Your task to perform on an android device: add a contact Image 0: 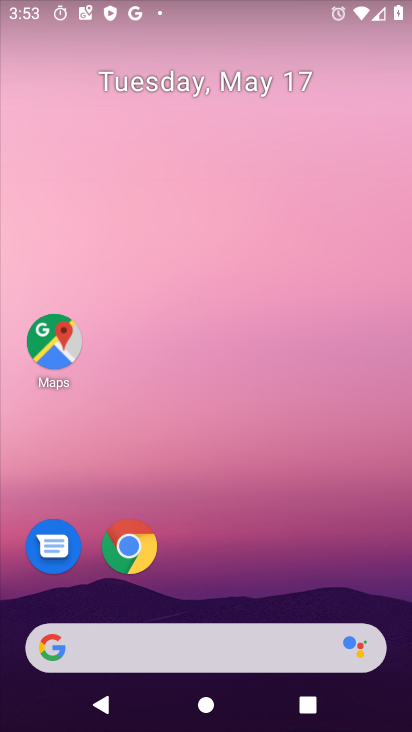
Step 0: click (382, 308)
Your task to perform on an android device: add a contact Image 1: 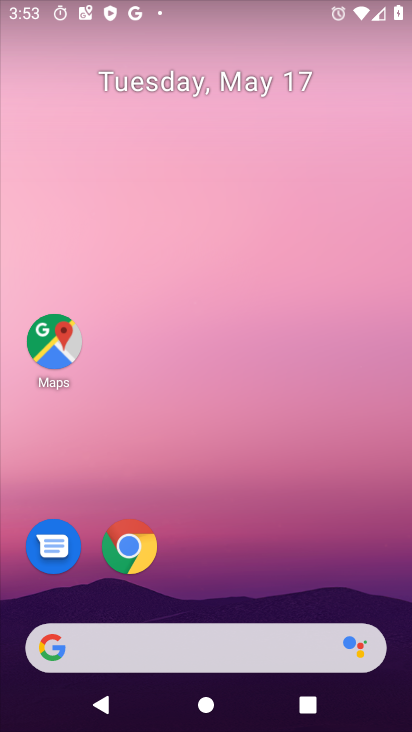
Step 1: drag from (396, 686) to (387, 427)
Your task to perform on an android device: add a contact Image 2: 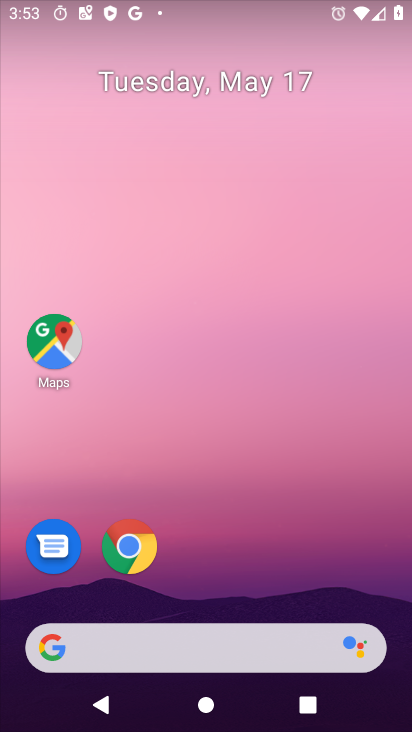
Step 2: drag from (397, 682) to (390, 186)
Your task to perform on an android device: add a contact Image 3: 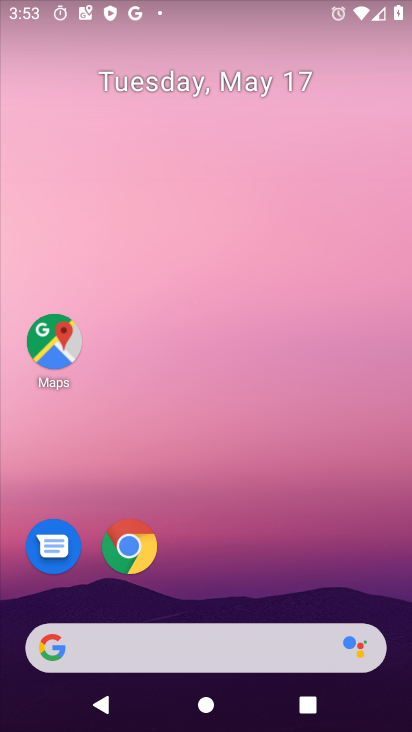
Step 3: drag from (396, 686) to (390, 137)
Your task to perform on an android device: add a contact Image 4: 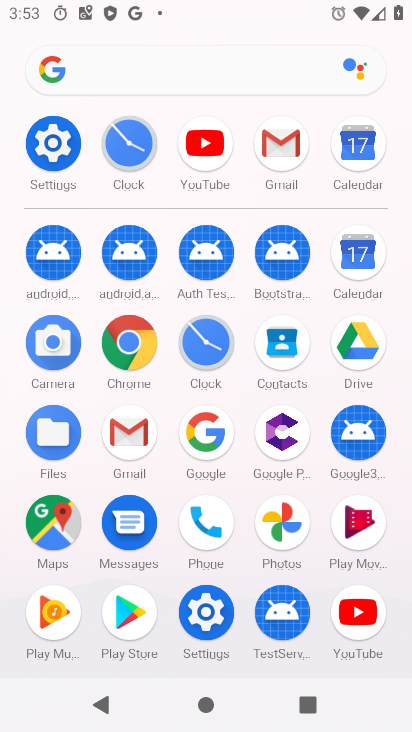
Step 4: click (277, 350)
Your task to perform on an android device: add a contact Image 5: 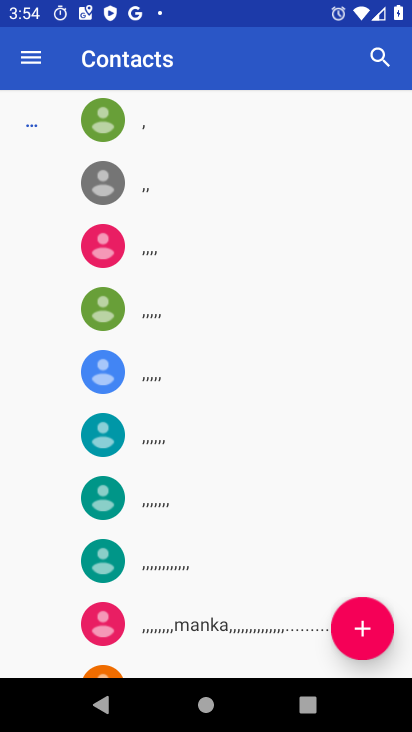
Step 5: click (366, 619)
Your task to perform on an android device: add a contact Image 6: 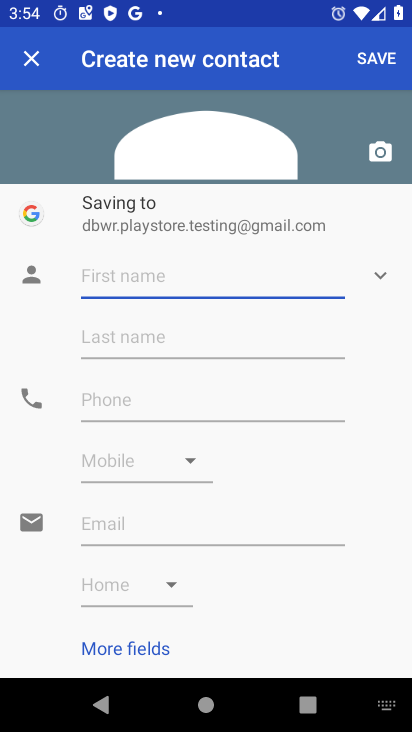
Step 6: type "excfh"
Your task to perform on an android device: add a contact Image 7: 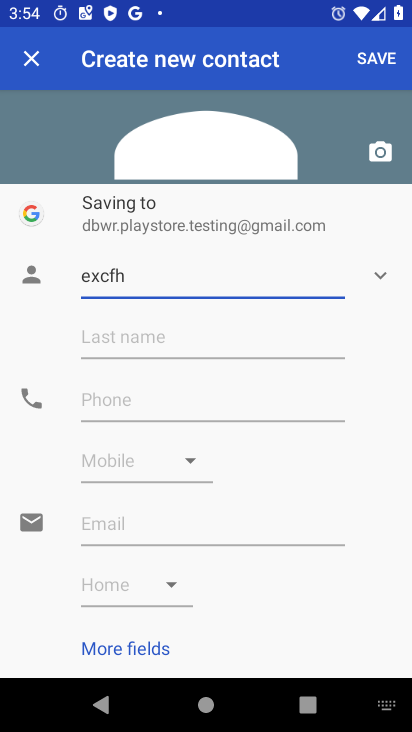
Step 7: click (191, 346)
Your task to perform on an android device: add a contact Image 8: 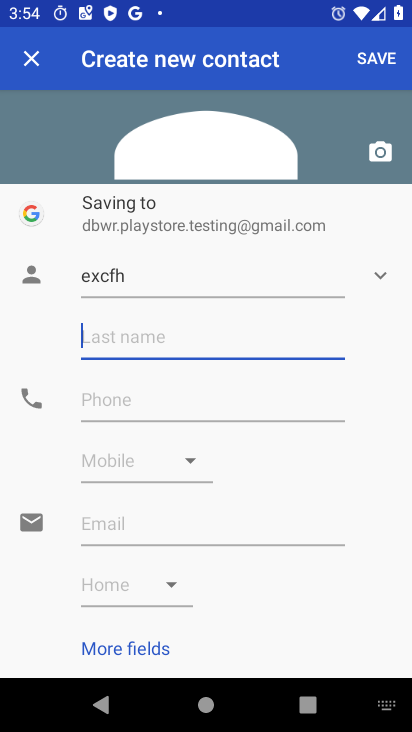
Step 8: type "g"
Your task to perform on an android device: add a contact Image 9: 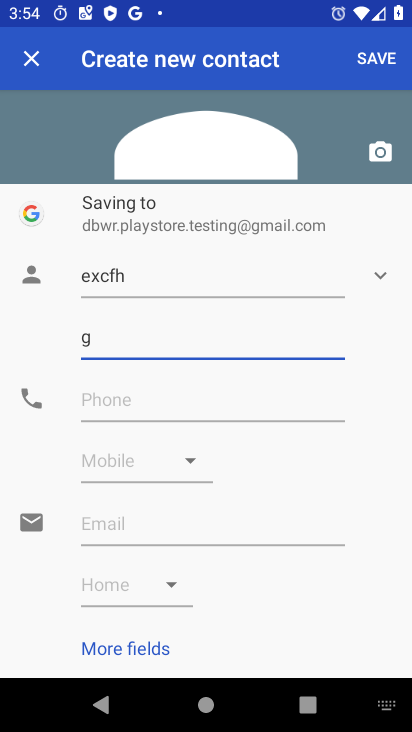
Step 9: type "efgbn"
Your task to perform on an android device: add a contact Image 10: 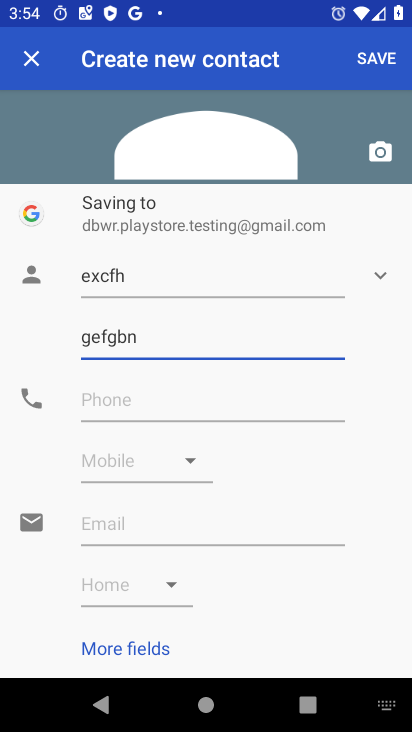
Step 10: click (133, 402)
Your task to perform on an android device: add a contact Image 11: 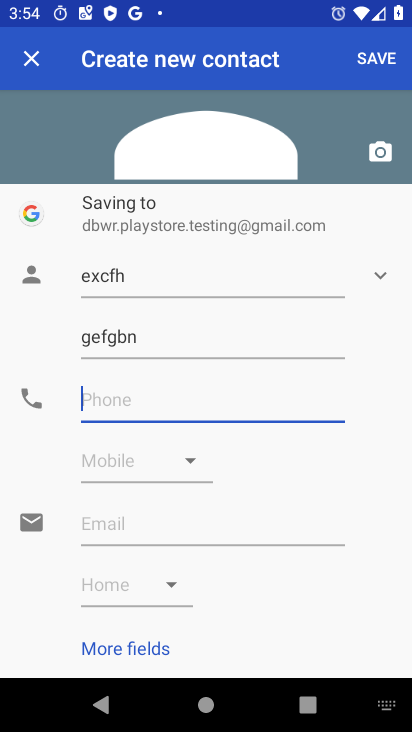
Step 11: type "4546787654"
Your task to perform on an android device: add a contact Image 12: 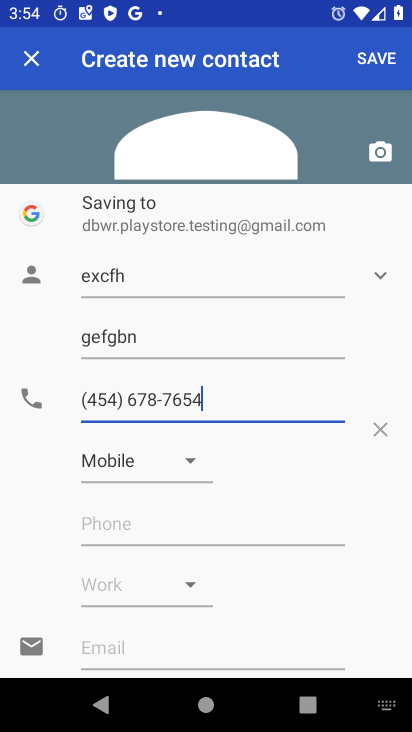
Step 12: click (368, 63)
Your task to perform on an android device: add a contact Image 13: 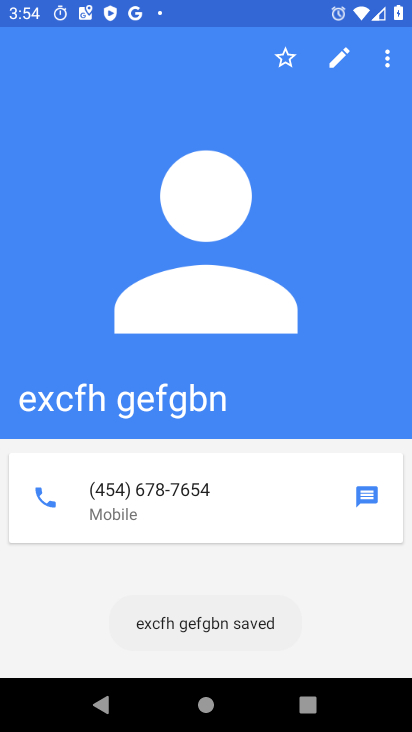
Step 13: task complete